Your task to perform on an android device: add a contact Image 0: 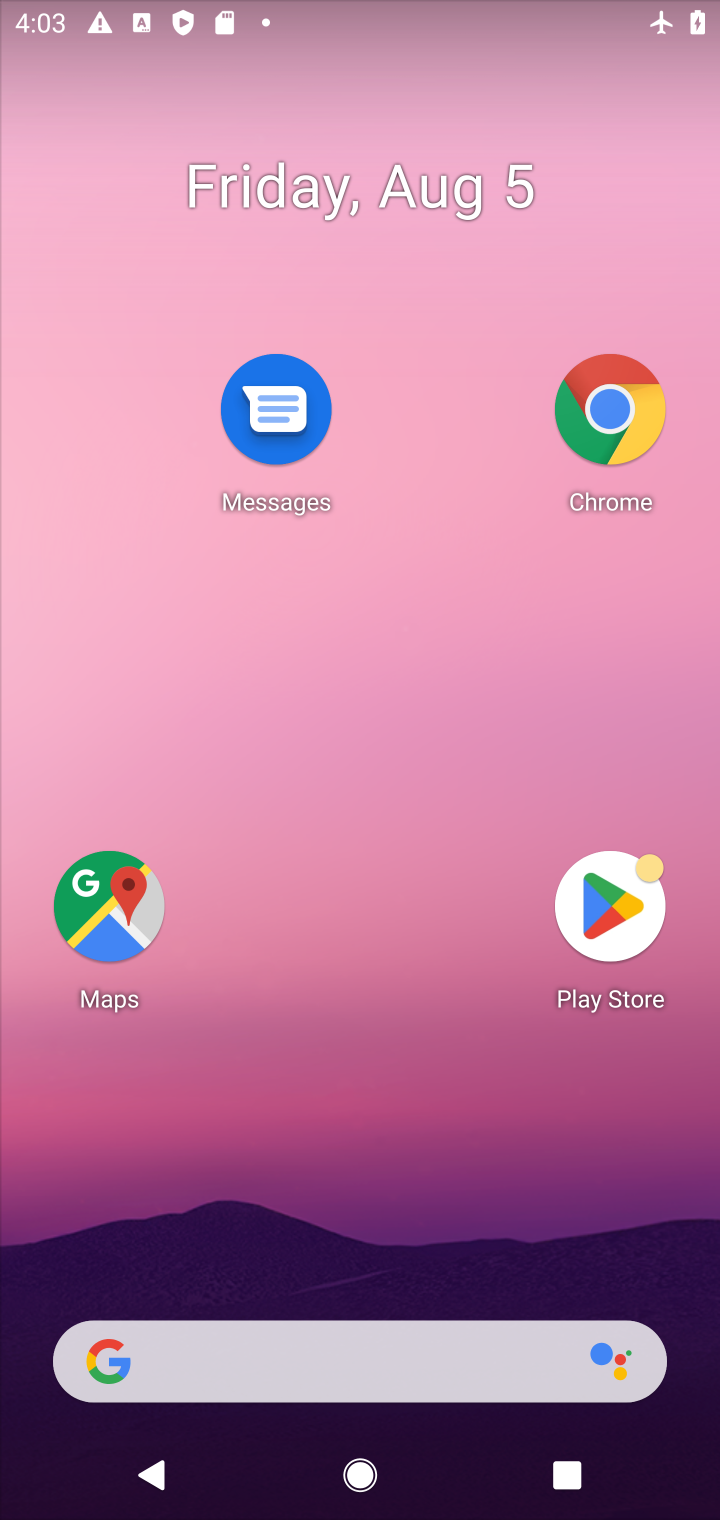
Step 0: drag from (403, 1041) to (403, 281)
Your task to perform on an android device: add a contact Image 1: 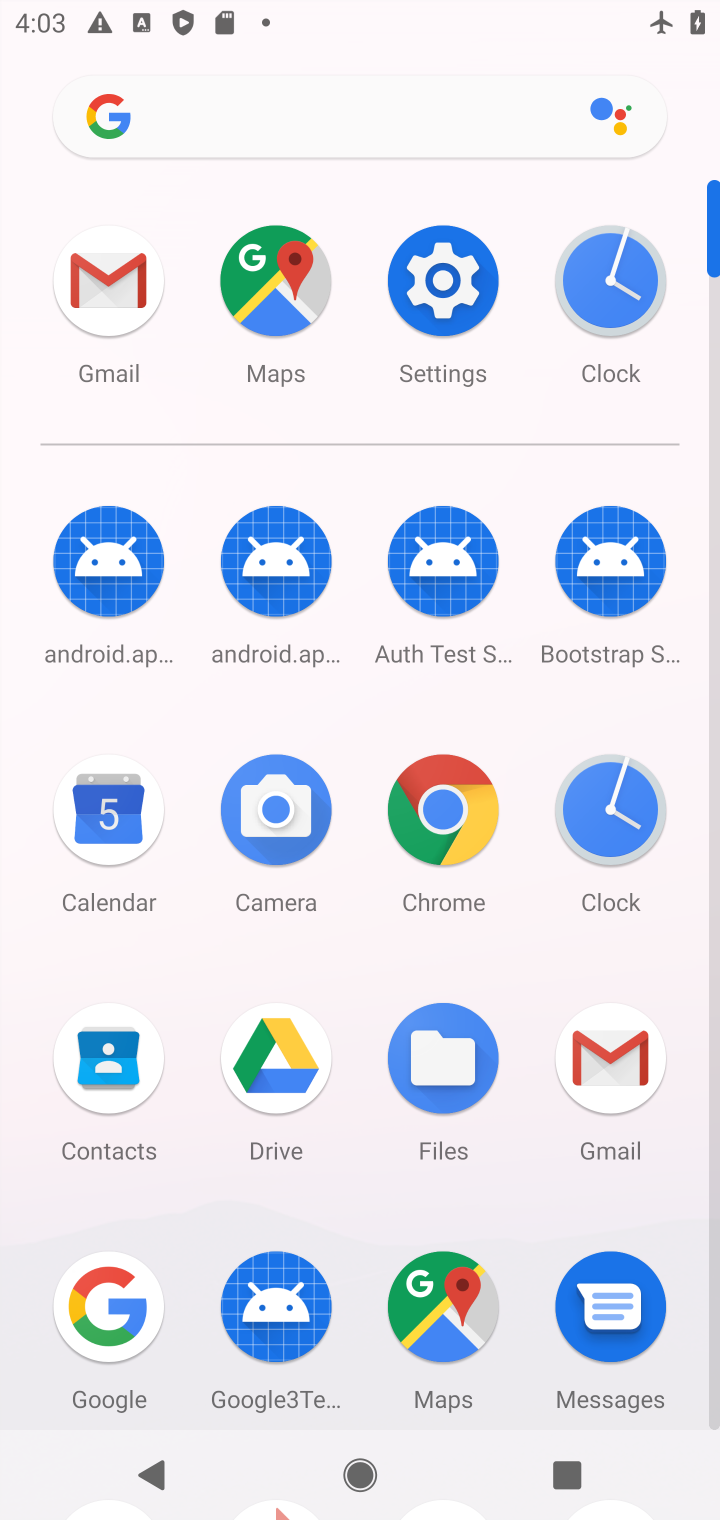
Step 1: click (114, 1063)
Your task to perform on an android device: add a contact Image 2: 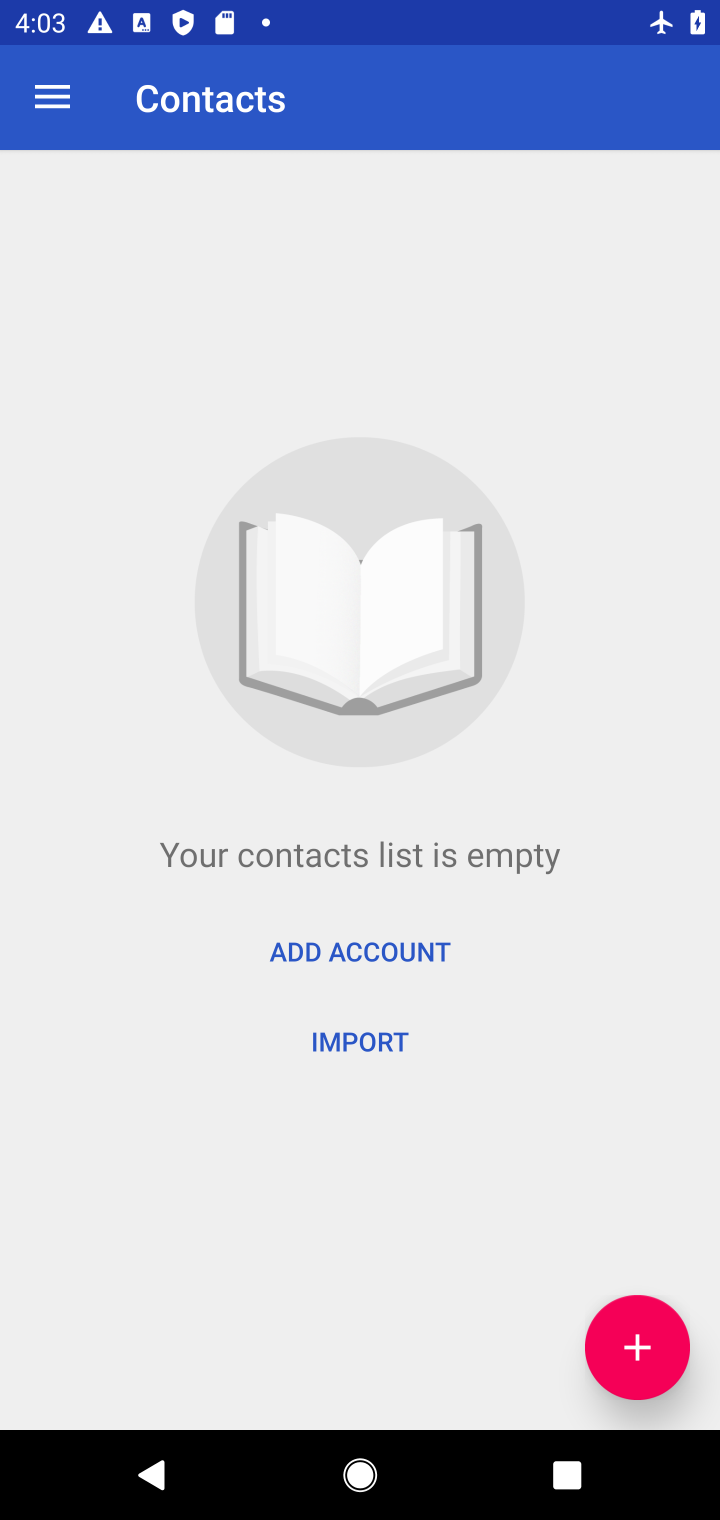
Step 2: click (702, 1345)
Your task to perform on an android device: add a contact Image 3: 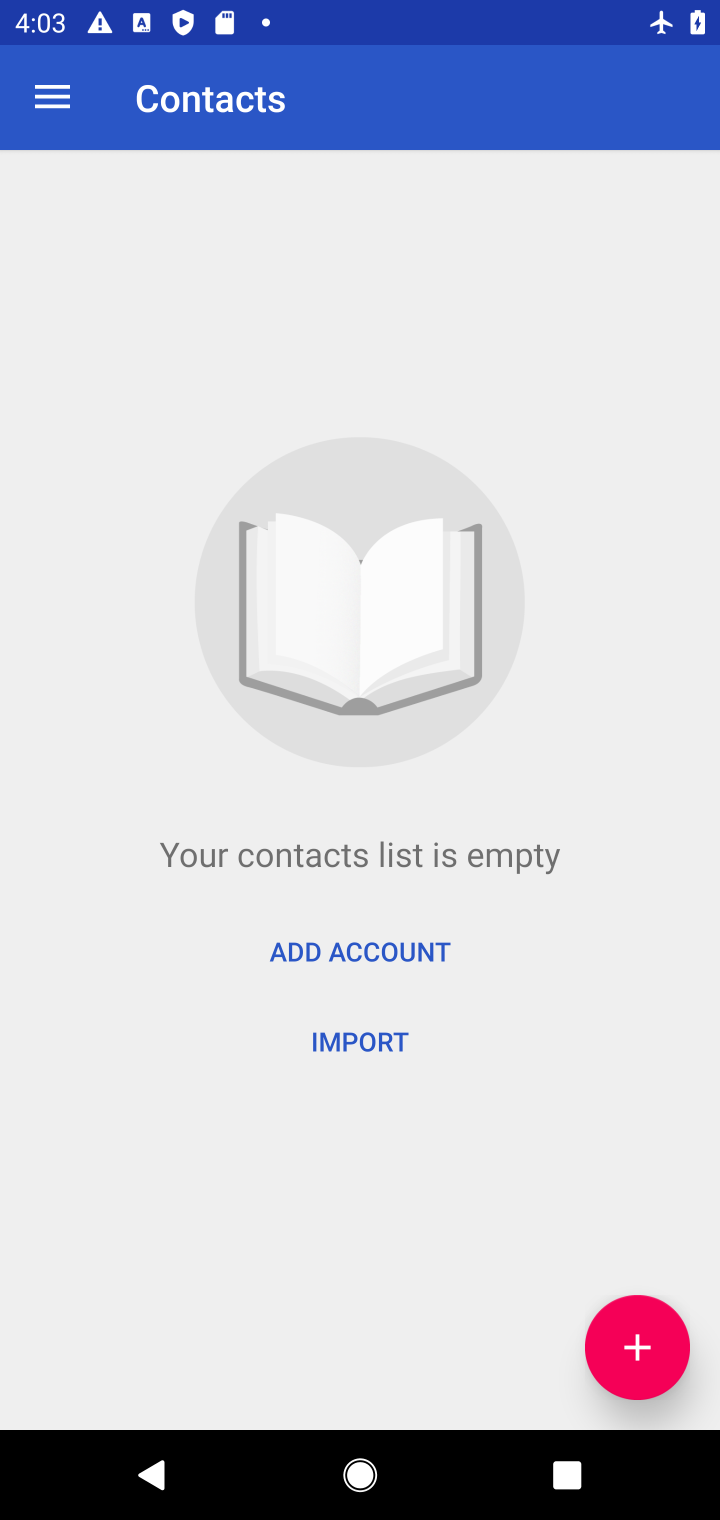
Step 3: click (662, 1345)
Your task to perform on an android device: add a contact Image 4: 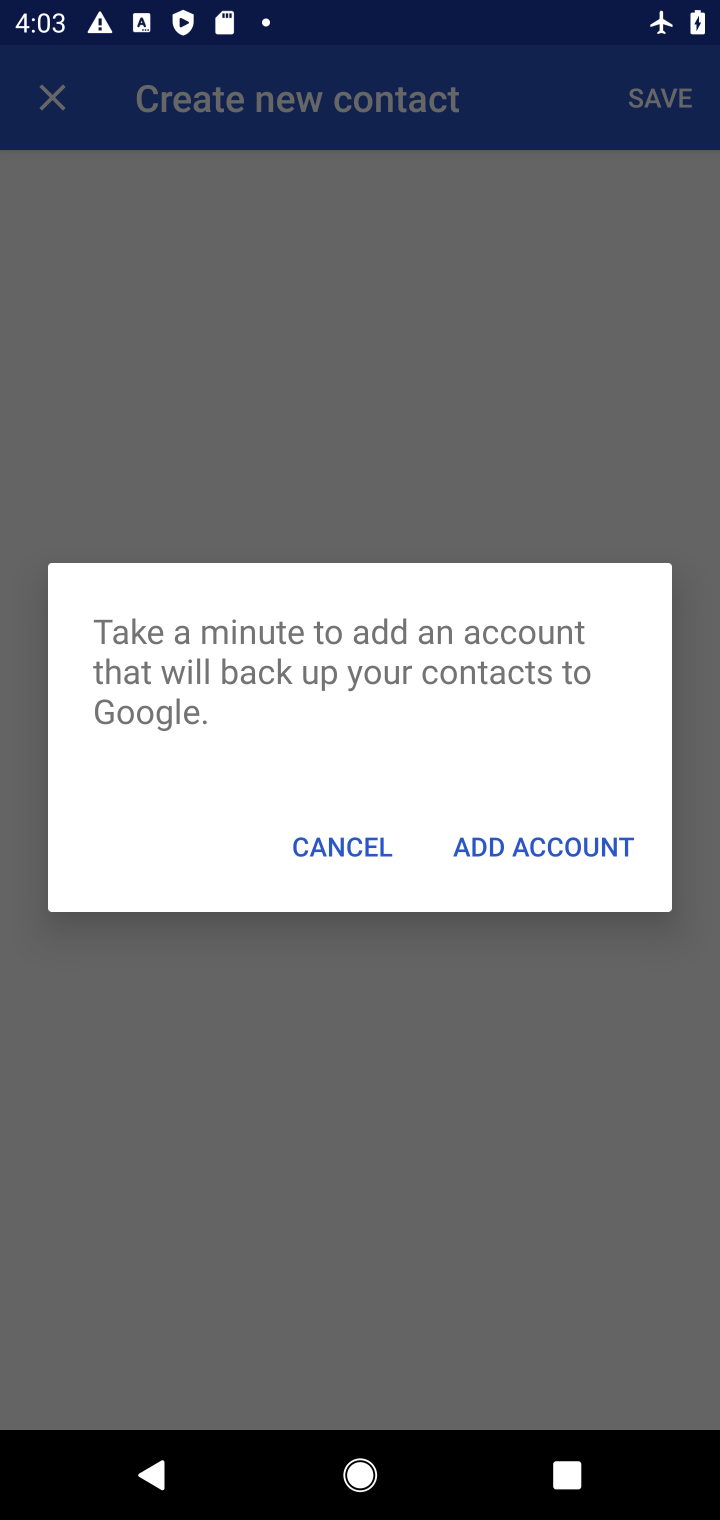
Step 4: click (342, 839)
Your task to perform on an android device: add a contact Image 5: 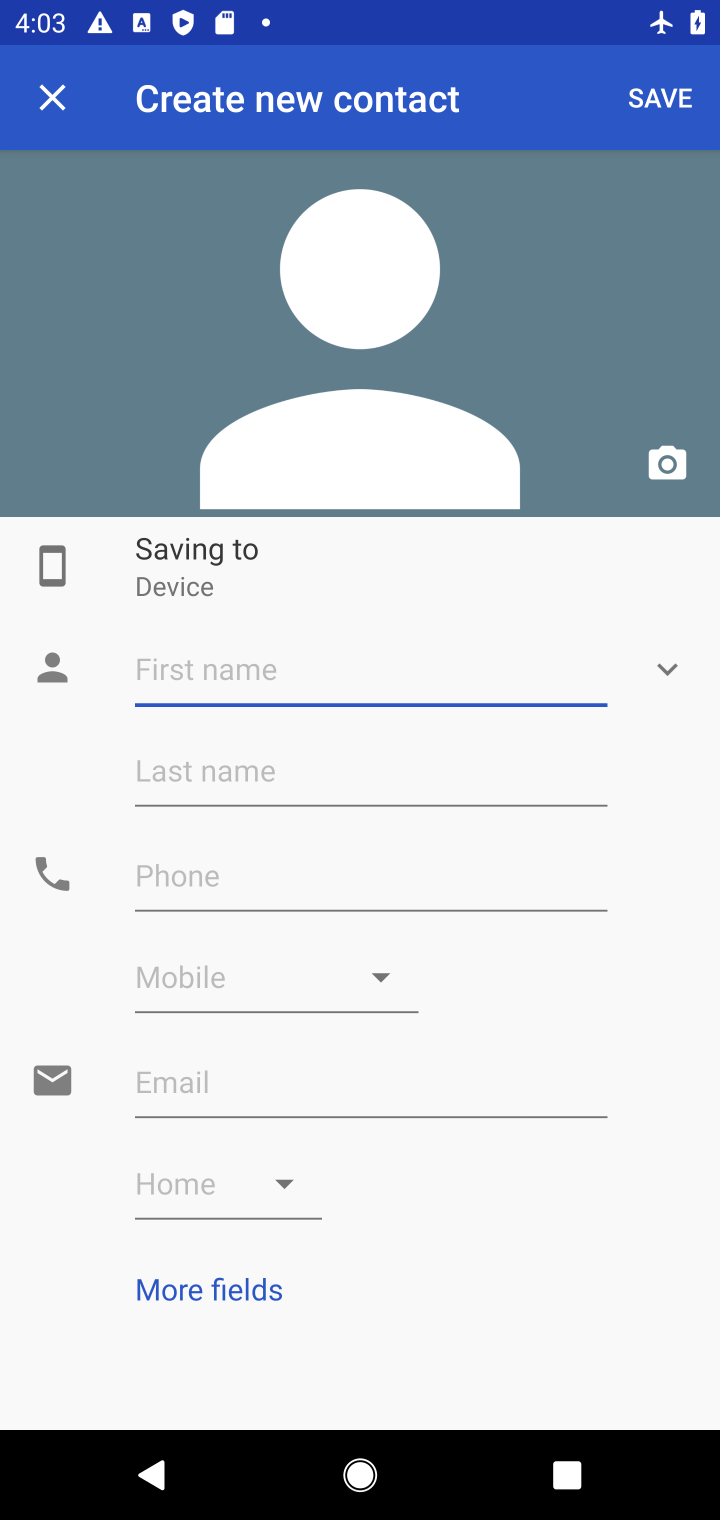
Step 5: type "iugug"
Your task to perform on an android device: add a contact Image 6: 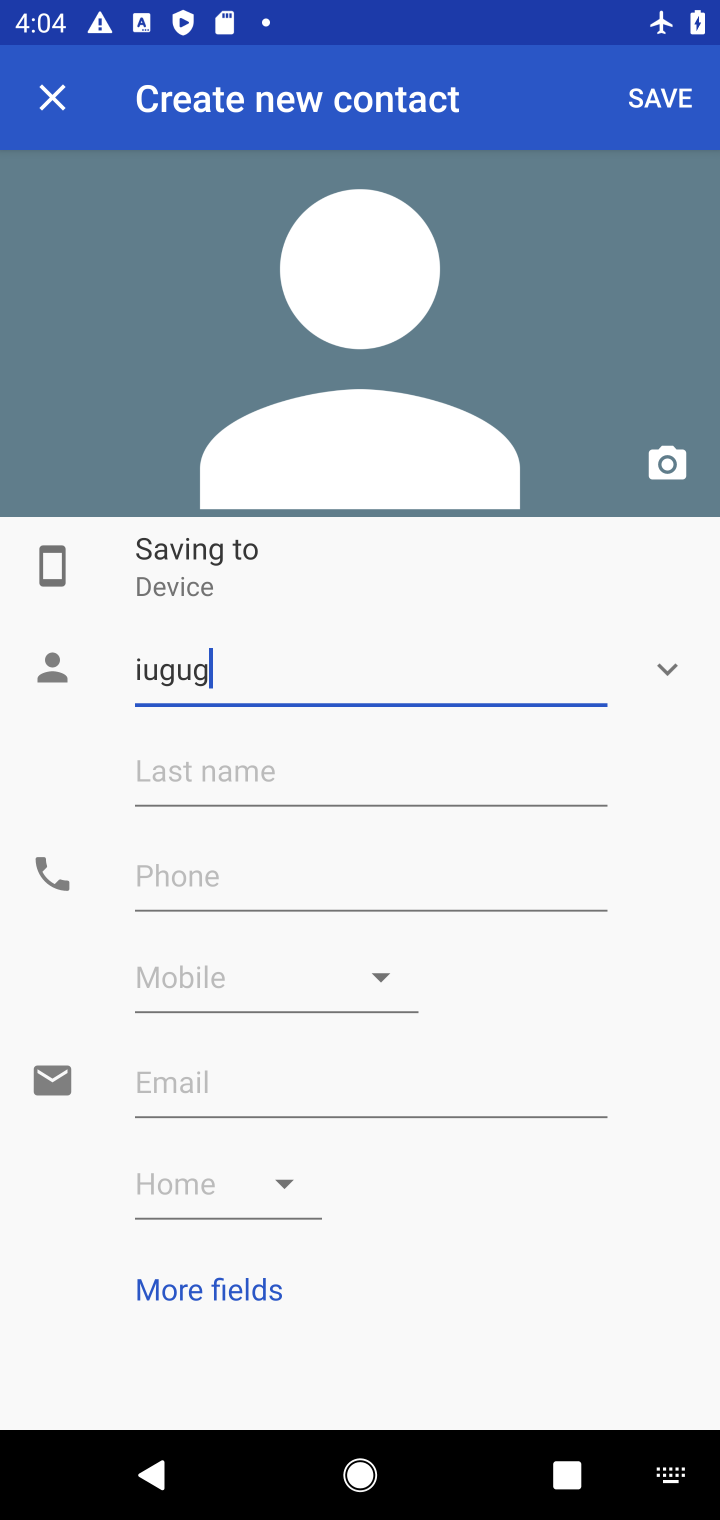
Step 6: click (292, 897)
Your task to perform on an android device: add a contact Image 7: 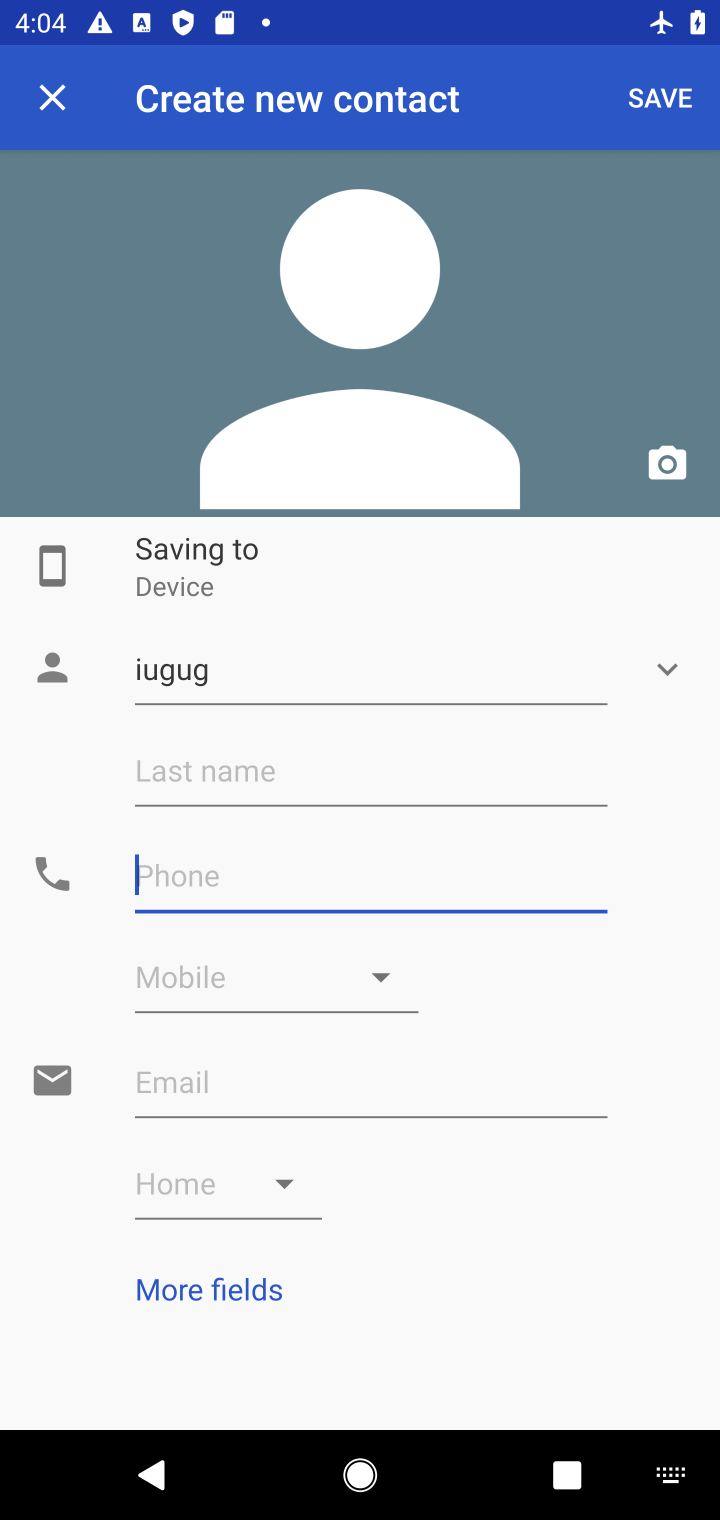
Step 7: type "87585787"
Your task to perform on an android device: add a contact Image 8: 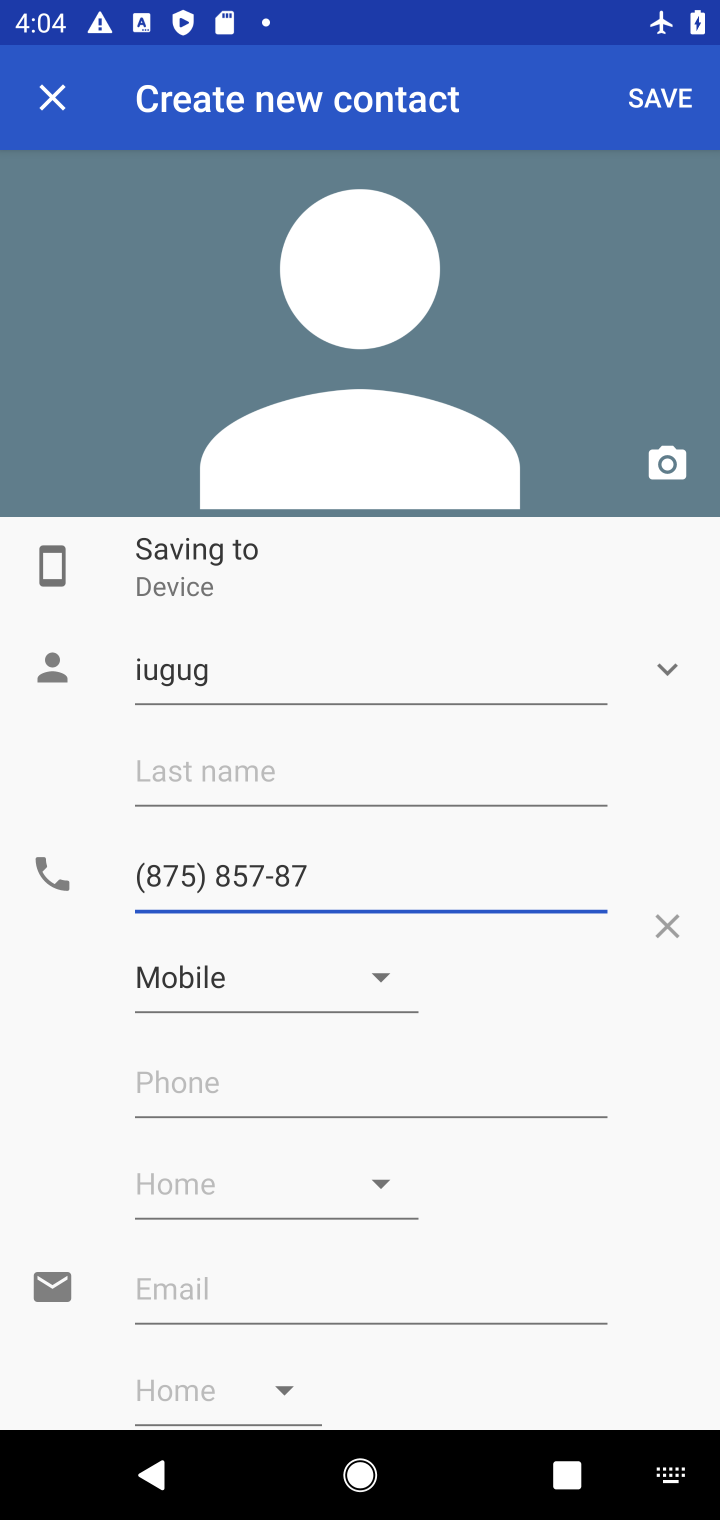
Step 8: click (672, 110)
Your task to perform on an android device: add a contact Image 9: 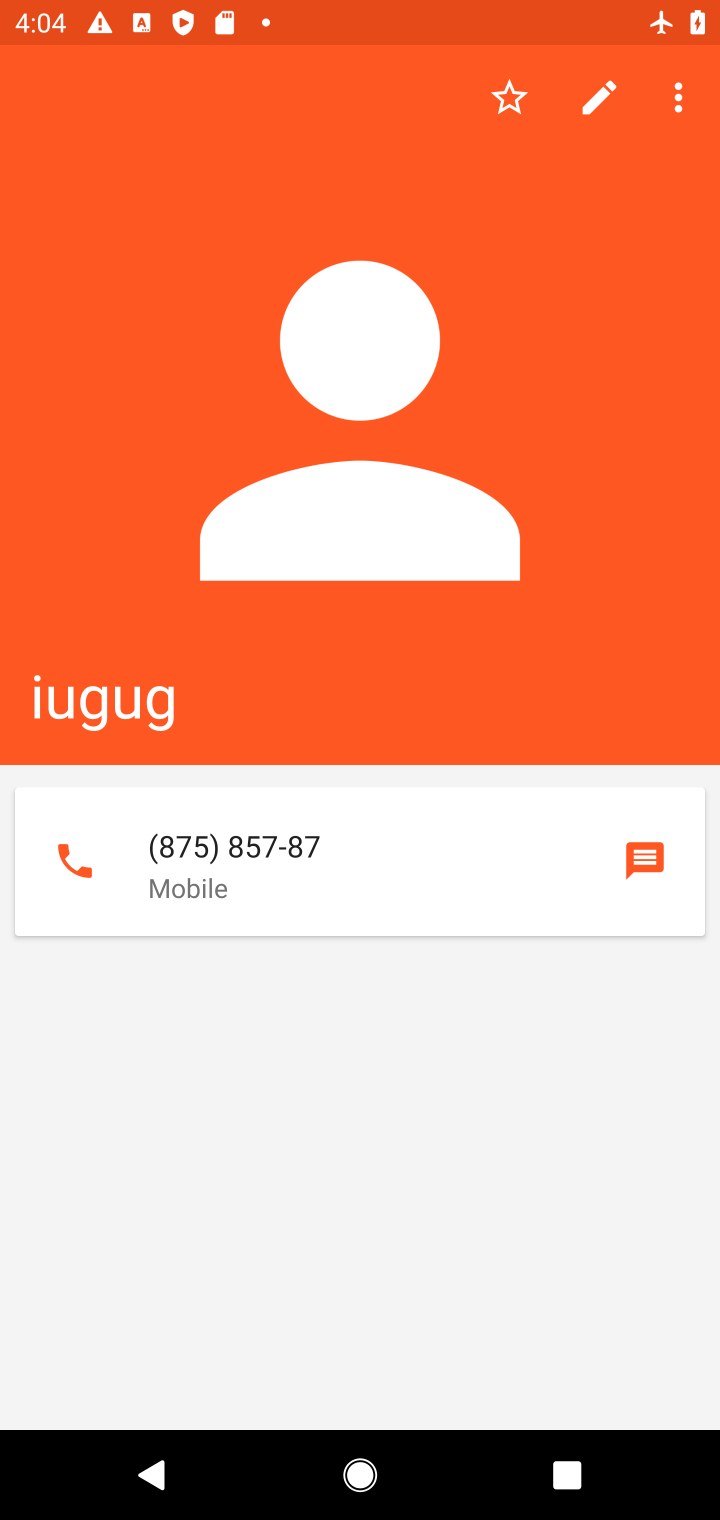
Step 9: task complete